Your task to perform on an android device: turn off wifi Image 0: 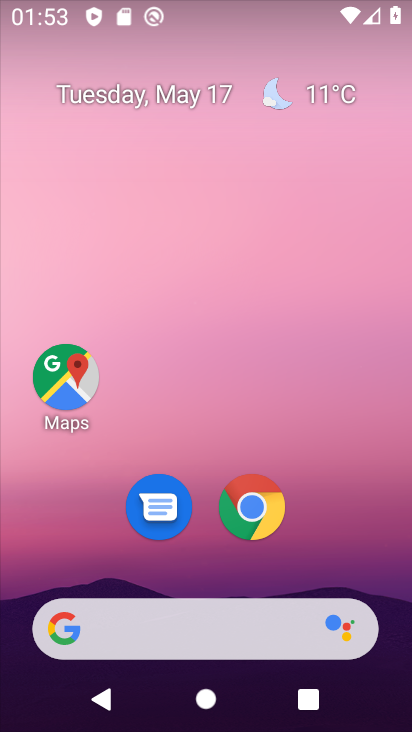
Step 0: drag from (265, 19) to (208, 589)
Your task to perform on an android device: turn off wifi Image 1: 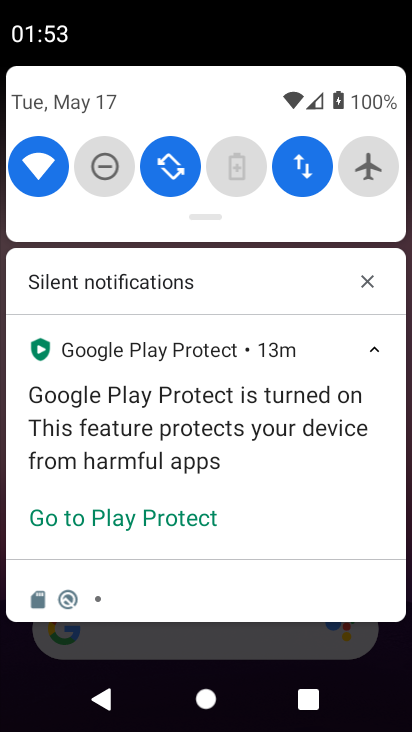
Step 1: click (46, 150)
Your task to perform on an android device: turn off wifi Image 2: 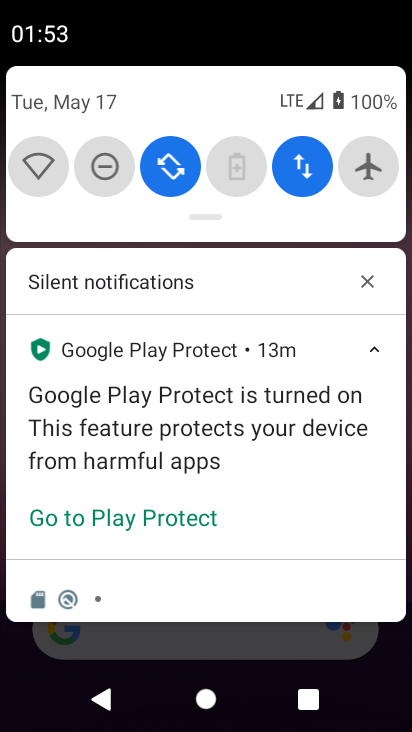
Step 2: task complete